Your task to perform on an android device: Go to eBay Image 0: 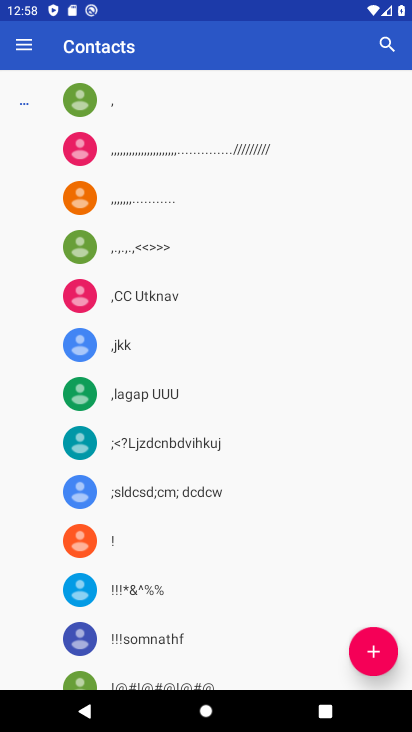
Step 0: press home button
Your task to perform on an android device: Go to eBay Image 1: 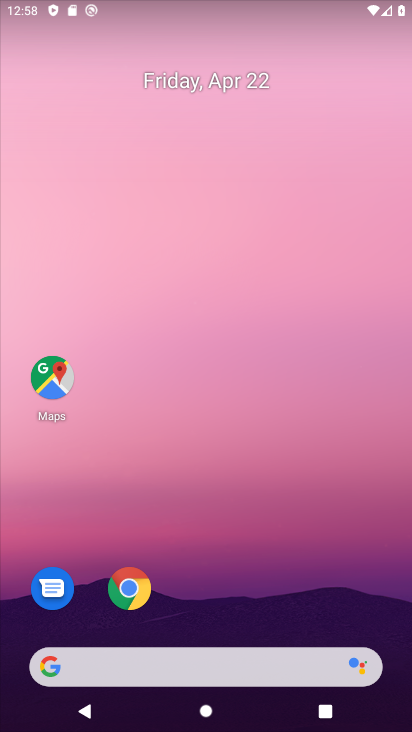
Step 1: drag from (378, 589) to (406, 164)
Your task to perform on an android device: Go to eBay Image 2: 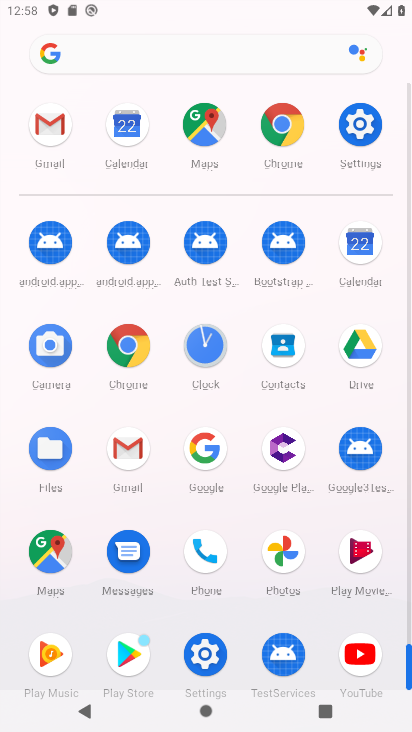
Step 2: click (280, 135)
Your task to perform on an android device: Go to eBay Image 3: 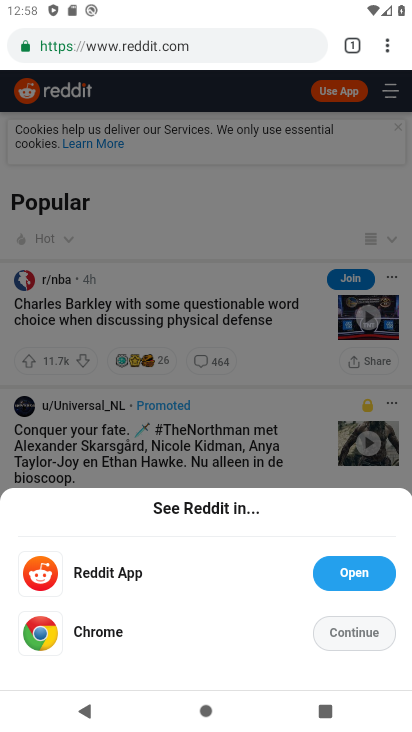
Step 3: click (167, 44)
Your task to perform on an android device: Go to eBay Image 4: 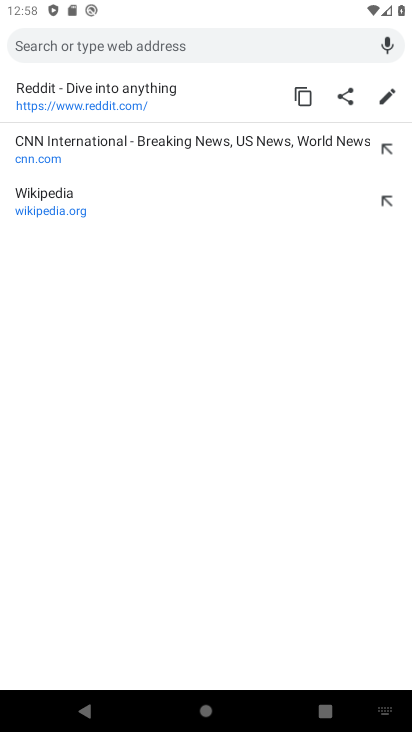
Step 4: type "ebay"
Your task to perform on an android device: Go to eBay Image 5: 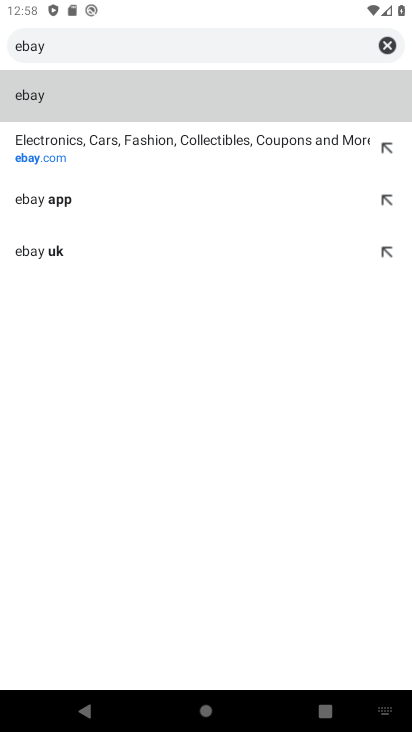
Step 5: click (53, 145)
Your task to perform on an android device: Go to eBay Image 6: 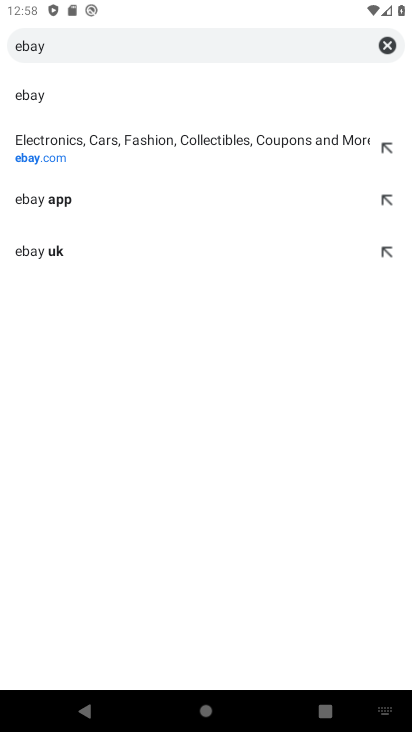
Step 6: click (39, 149)
Your task to perform on an android device: Go to eBay Image 7: 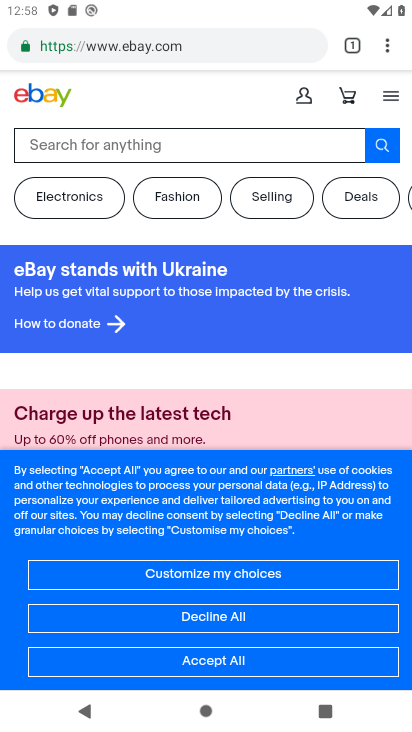
Step 7: task complete